Your task to perform on an android device: Open eBay Image 0: 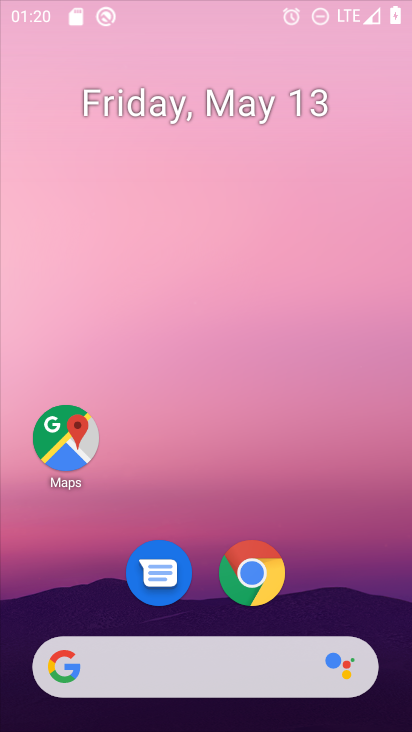
Step 0: click (267, 575)
Your task to perform on an android device: Open eBay Image 1: 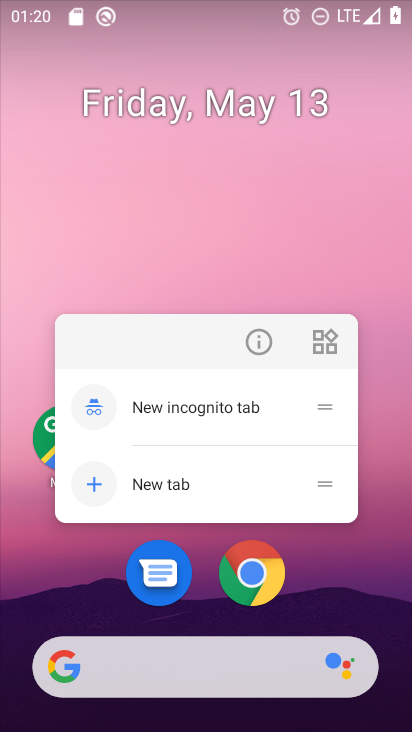
Step 1: click (267, 575)
Your task to perform on an android device: Open eBay Image 2: 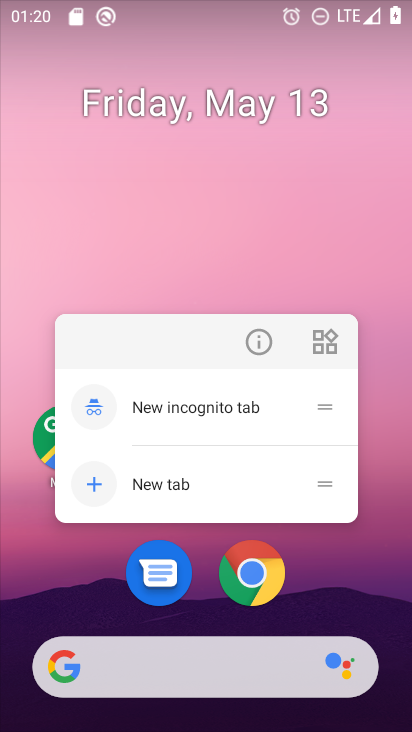
Step 2: click (267, 575)
Your task to perform on an android device: Open eBay Image 3: 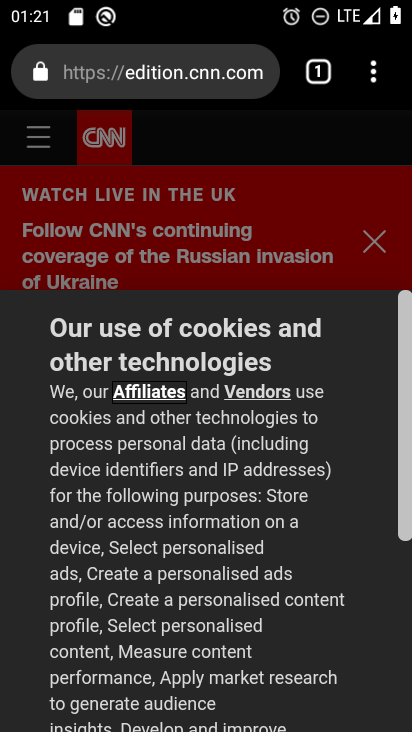
Step 3: press home button
Your task to perform on an android device: Open eBay Image 4: 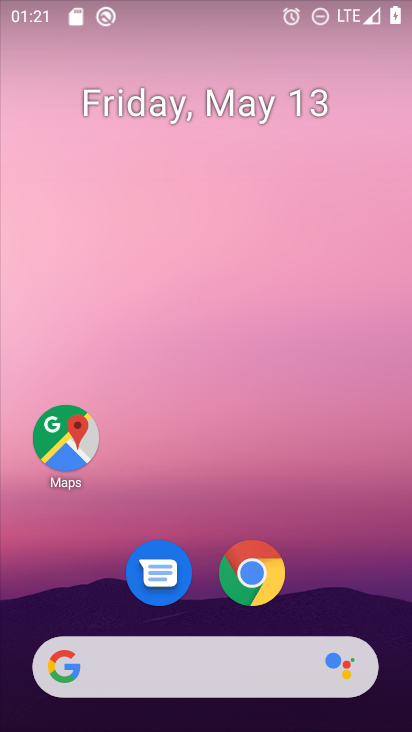
Step 4: drag from (251, 730) to (310, 80)
Your task to perform on an android device: Open eBay Image 5: 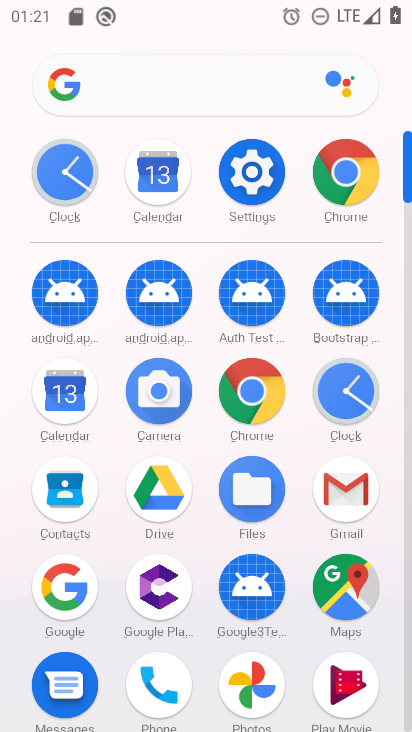
Step 5: click (353, 186)
Your task to perform on an android device: Open eBay Image 6: 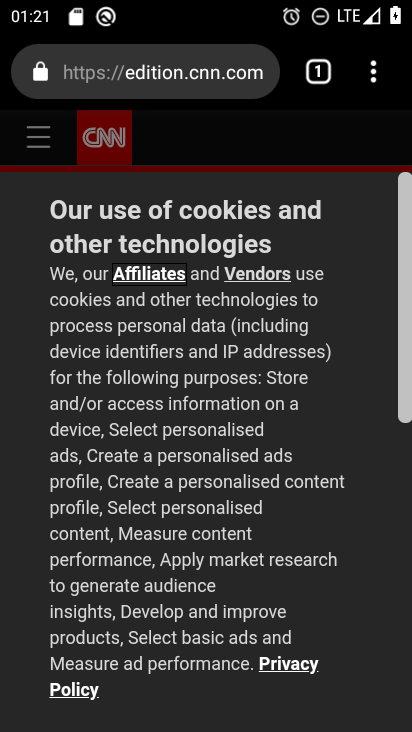
Step 6: click (378, 67)
Your task to perform on an android device: Open eBay Image 7: 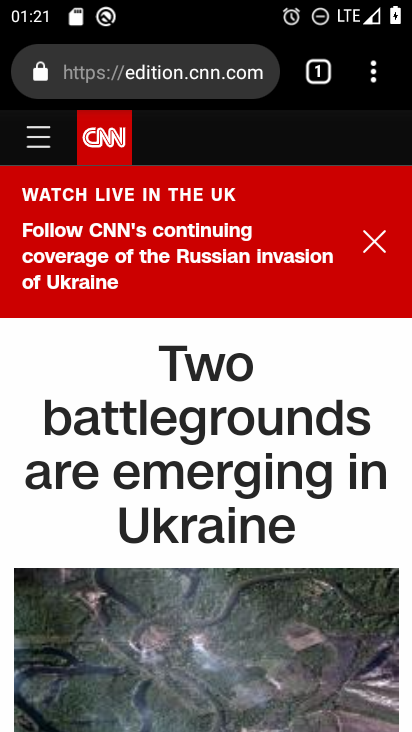
Step 7: click (377, 75)
Your task to perform on an android device: Open eBay Image 8: 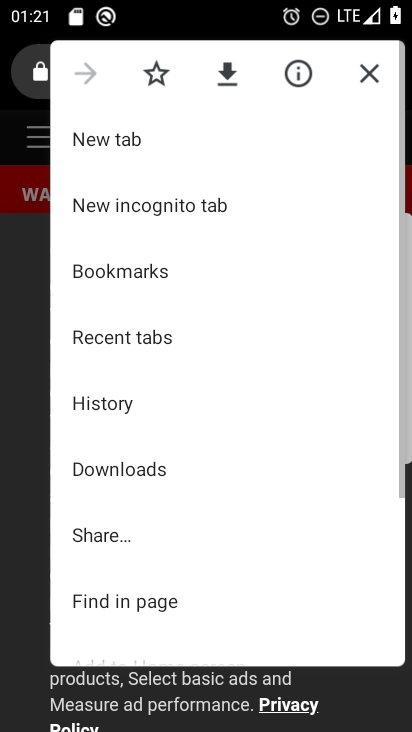
Step 8: click (202, 142)
Your task to perform on an android device: Open eBay Image 9: 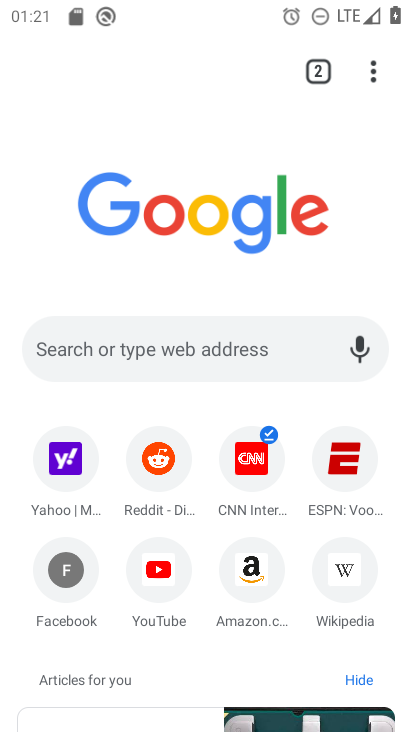
Step 9: click (168, 339)
Your task to perform on an android device: Open eBay Image 10: 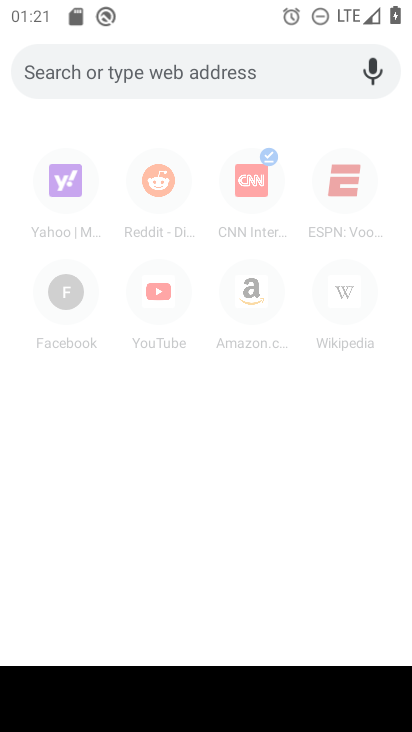
Step 10: type "ebay"
Your task to perform on an android device: Open eBay Image 11: 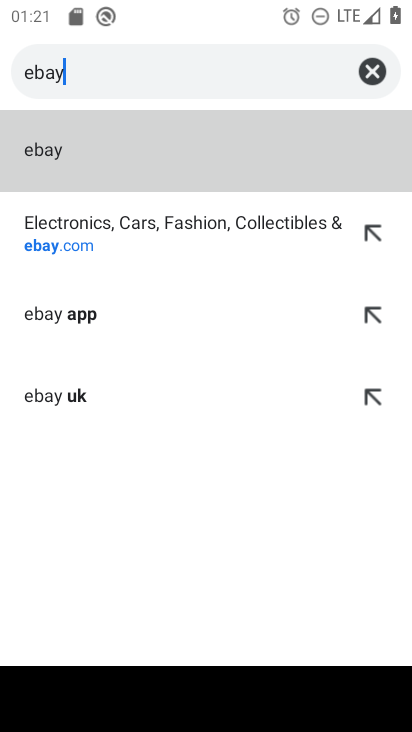
Step 11: click (198, 247)
Your task to perform on an android device: Open eBay Image 12: 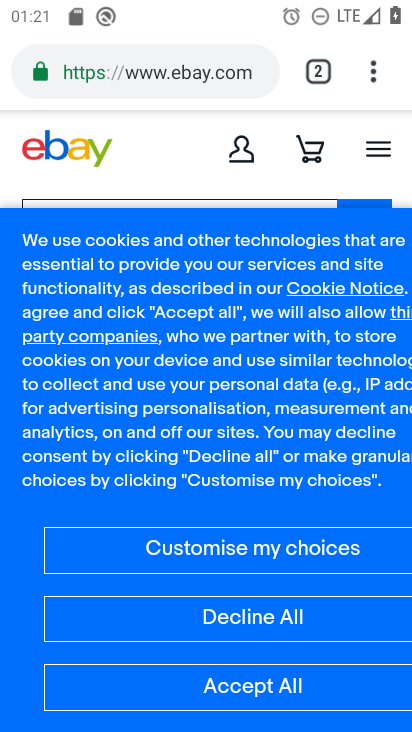
Step 12: task complete